Your task to perform on an android device: Go to Google Image 0: 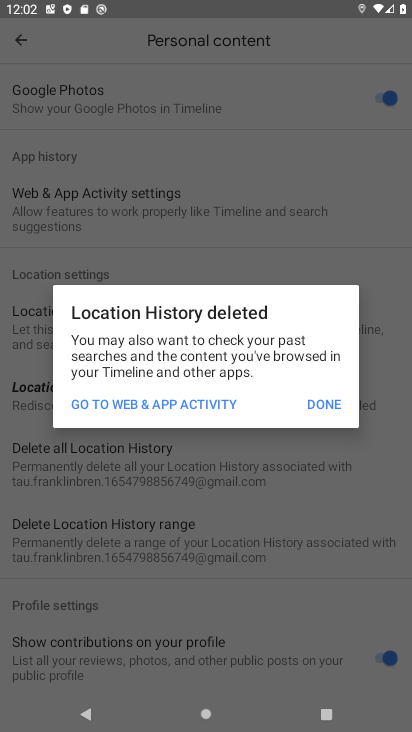
Step 0: press home button
Your task to perform on an android device: Go to Google Image 1: 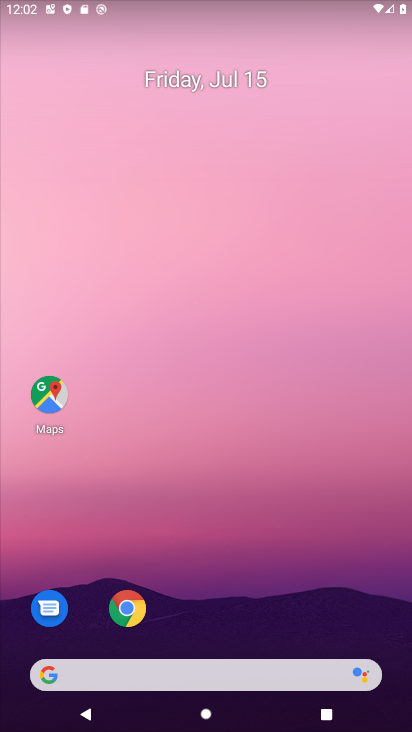
Step 1: drag from (157, 685) to (187, 29)
Your task to perform on an android device: Go to Google Image 2: 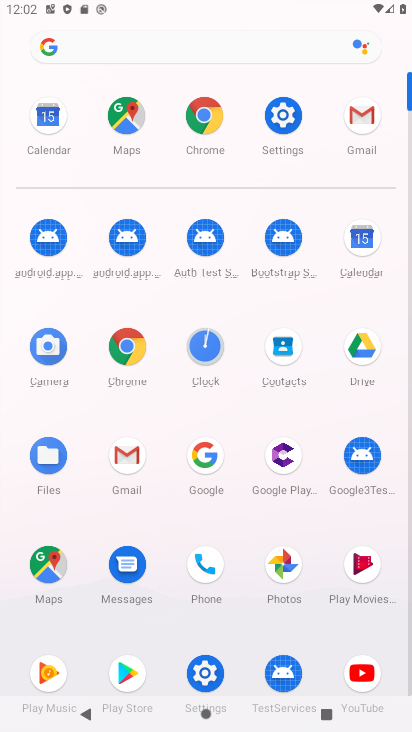
Step 2: click (130, 345)
Your task to perform on an android device: Go to Google Image 3: 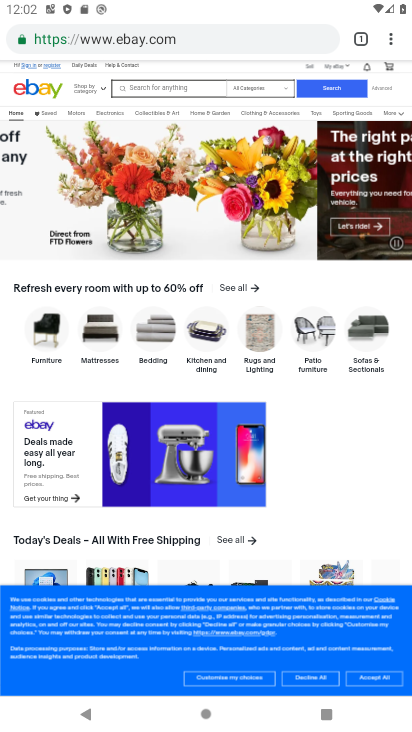
Step 3: click (391, 35)
Your task to perform on an android device: Go to Google Image 4: 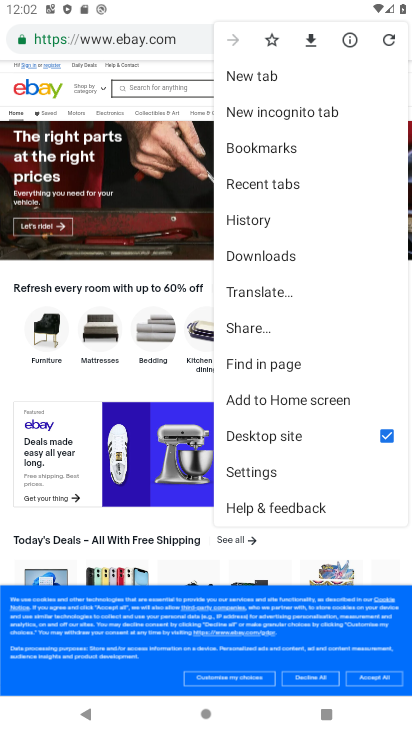
Step 4: click (302, 76)
Your task to perform on an android device: Go to Google Image 5: 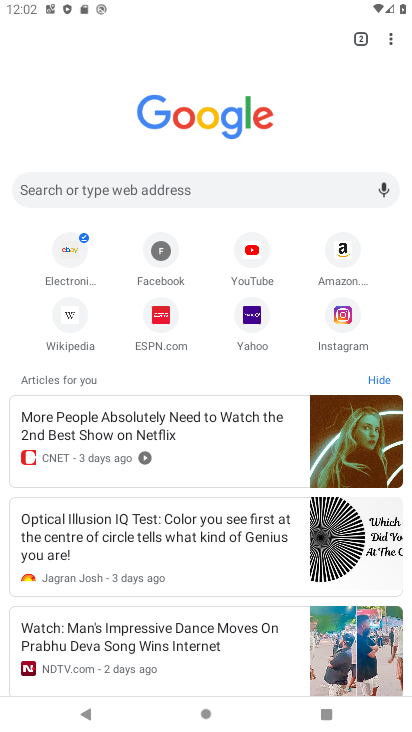
Step 5: task complete